Your task to perform on an android device: set default search engine in the chrome app Image 0: 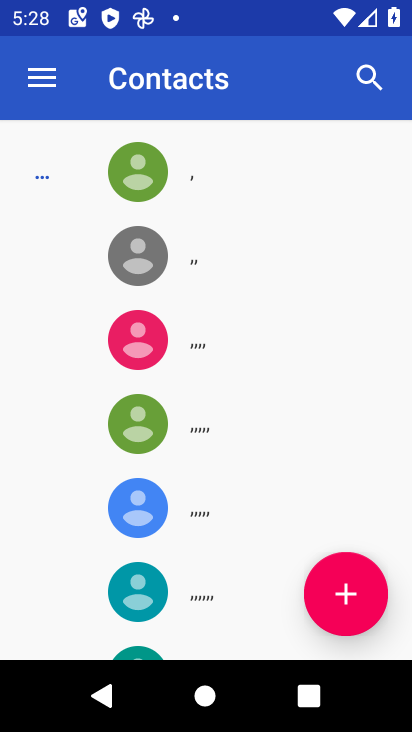
Step 0: press home button
Your task to perform on an android device: set default search engine in the chrome app Image 1: 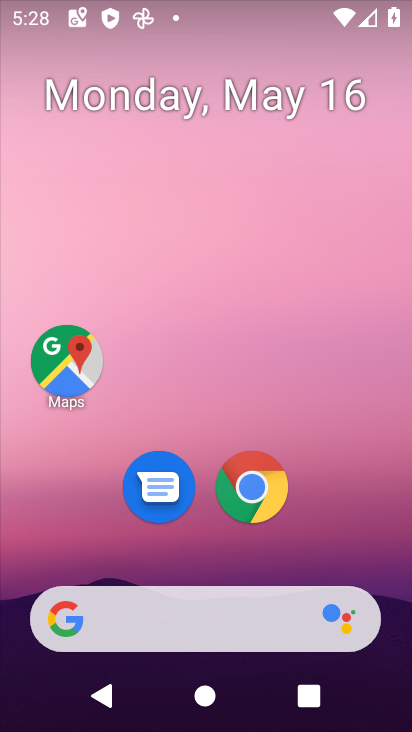
Step 1: click (254, 481)
Your task to perform on an android device: set default search engine in the chrome app Image 2: 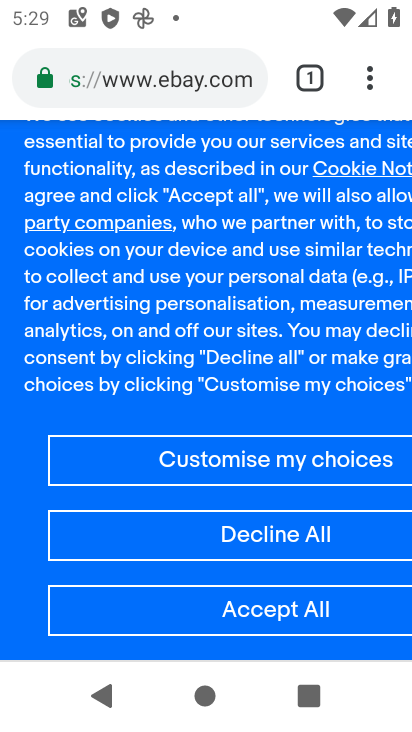
Step 2: click (366, 85)
Your task to perform on an android device: set default search engine in the chrome app Image 3: 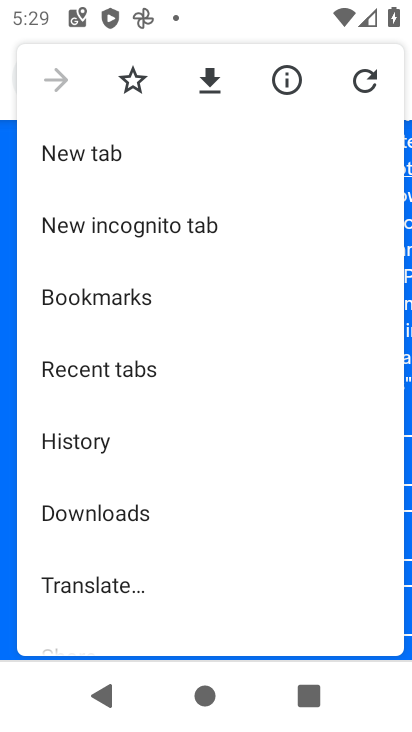
Step 3: drag from (214, 552) to (249, 85)
Your task to perform on an android device: set default search engine in the chrome app Image 4: 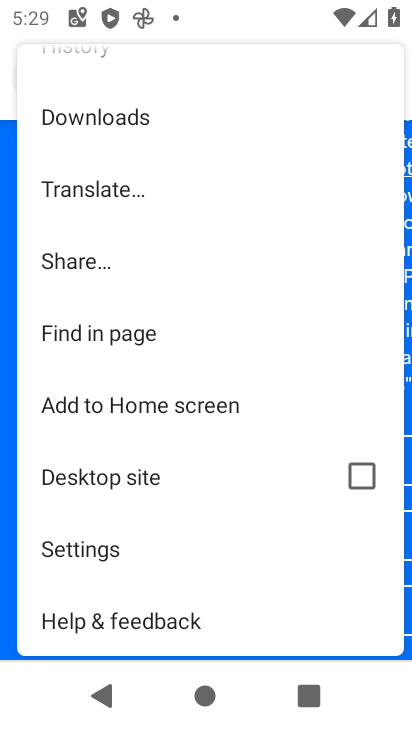
Step 4: click (71, 545)
Your task to perform on an android device: set default search engine in the chrome app Image 5: 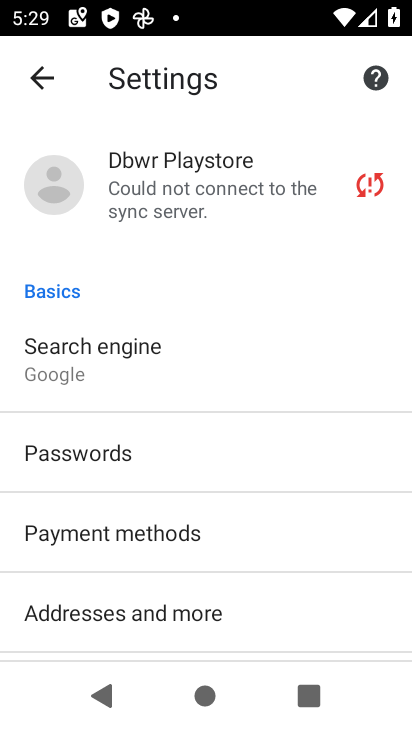
Step 5: drag from (205, 602) to (197, 552)
Your task to perform on an android device: set default search engine in the chrome app Image 6: 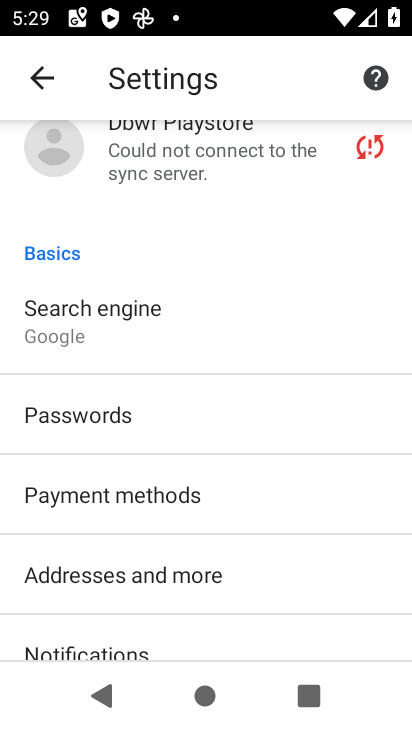
Step 6: click (76, 312)
Your task to perform on an android device: set default search engine in the chrome app Image 7: 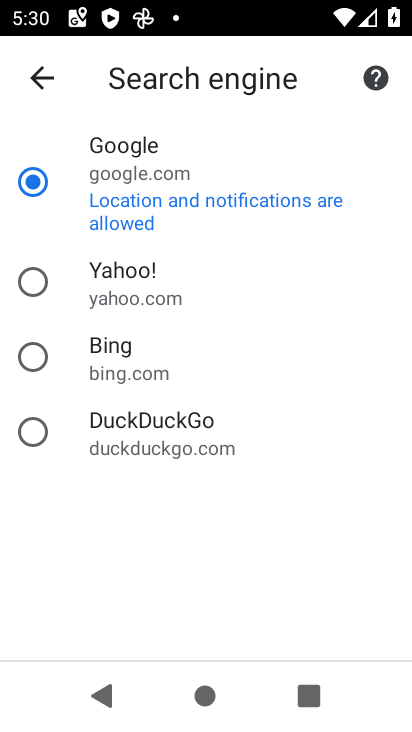
Step 7: click (39, 281)
Your task to perform on an android device: set default search engine in the chrome app Image 8: 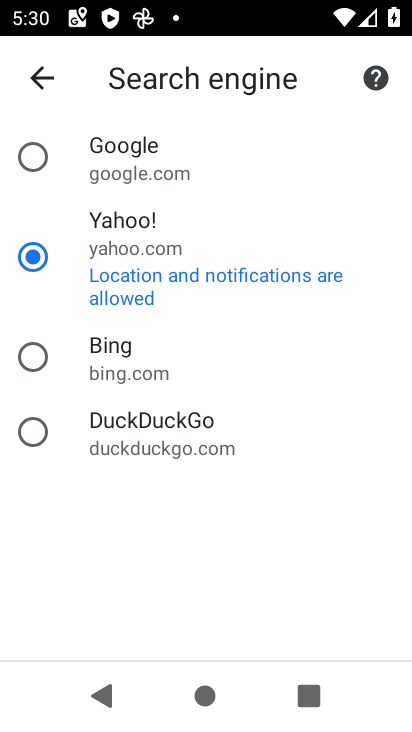
Step 8: task complete